Your task to perform on an android device: When is my next meeting? Image 0: 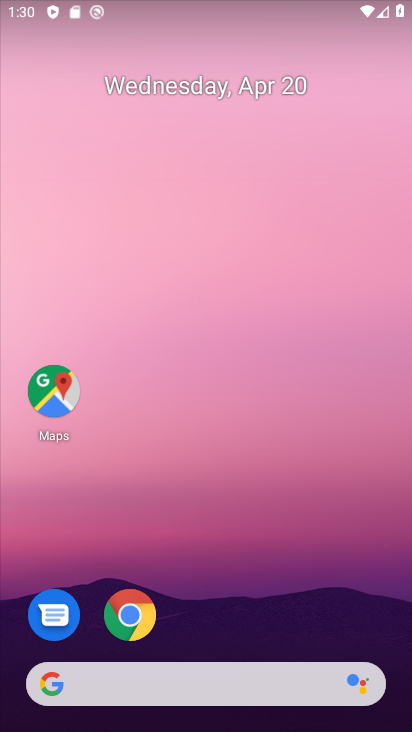
Step 0: drag from (246, 631) to (200, 54)
Your task to perform on an android device: When is my next meeting? Image 1: 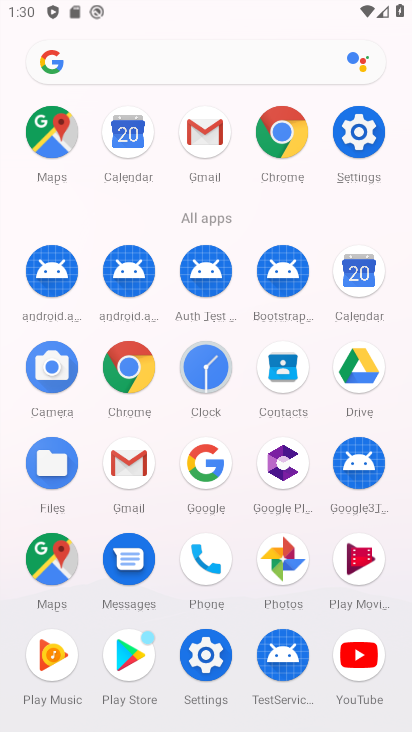
Step 1: click (348, 275)
Your task to perform on an android device: When is my next meeting? Image 2: 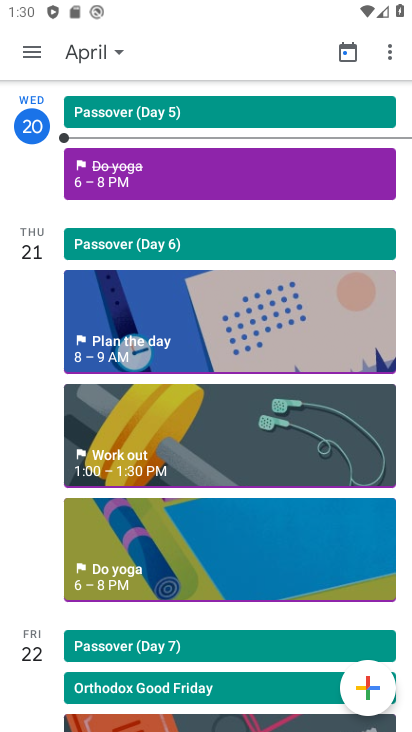
Step 2: task complete